Your task to perform on an android device: Go to CNN.com Image 0: 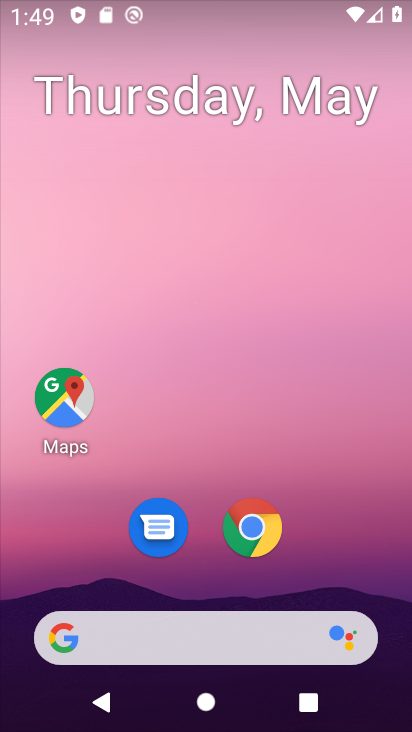
Step 0: click (236, 542)
Your task to perform on an android device: Go to CNN.com Image 1: 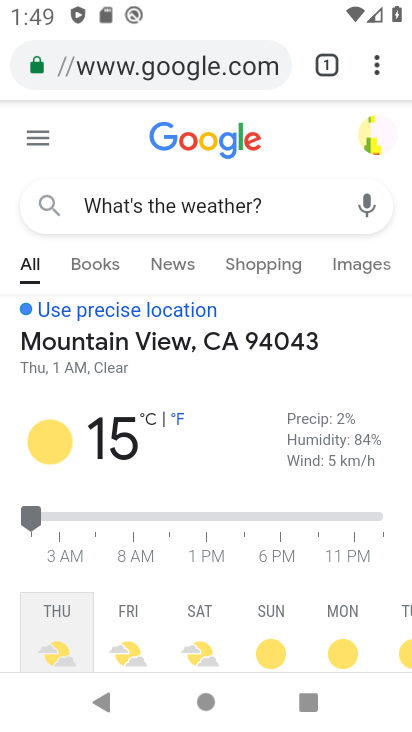
Step 1: click (168, 63)
Your task to perform on an android device: Go to CNN.com Image 2: 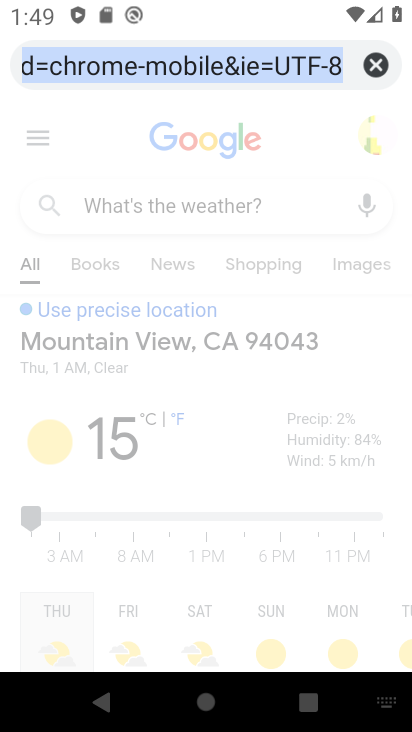
Step 2: click (374, 63)
Your task to perform on an android device: Go to CNN.com Image 3: 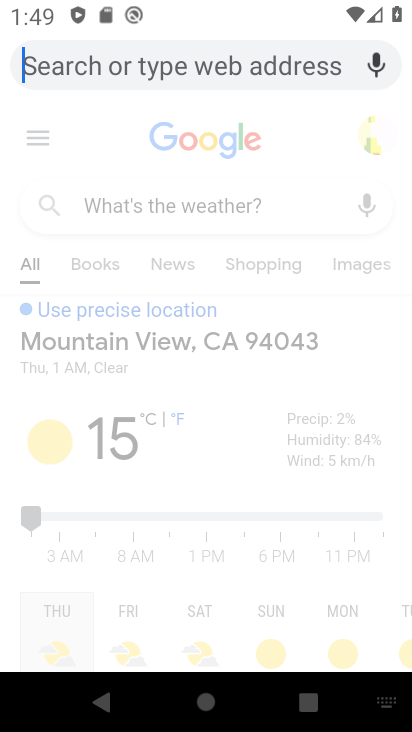
Step 3: click (374, 63)
Your task to perform on an android device: Go to CNN.com Image 4: 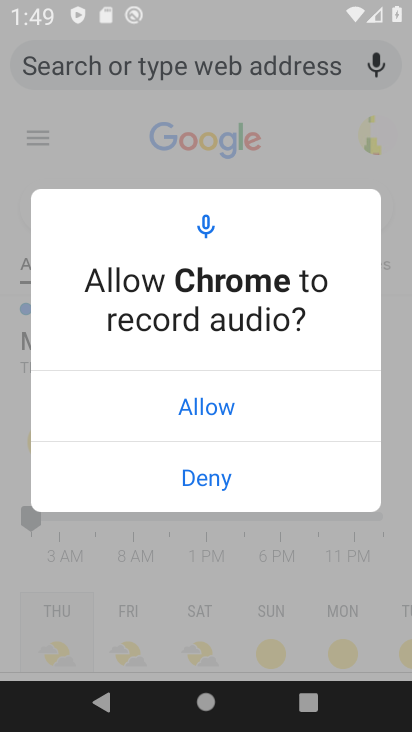
Step 4: type " CNN.com"
Your task to perform on an android device: Go to CNN.com Image 5: 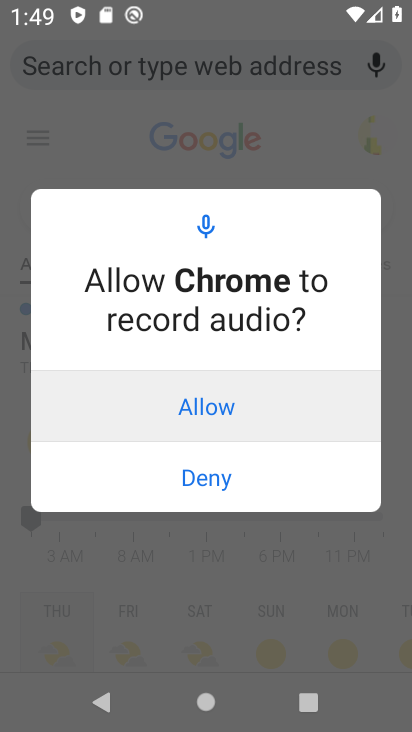
Step 5: click (233, 480)
Your task to perform on an android device: Go to CNN.com Image 6: 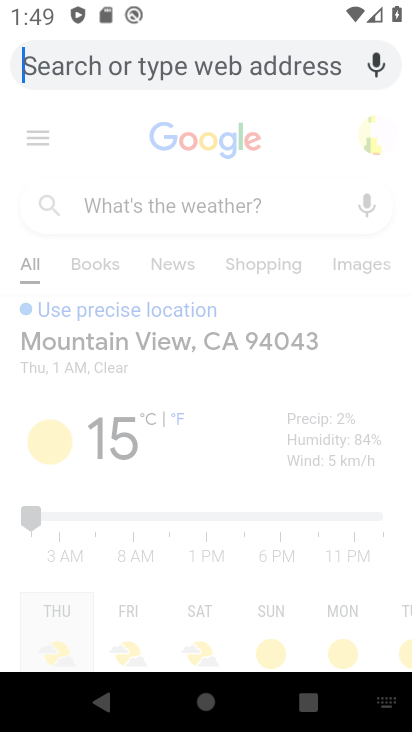
Step 6: click (152, 64)
Your task to perform on an android device: Go to CNN.com Image 7: 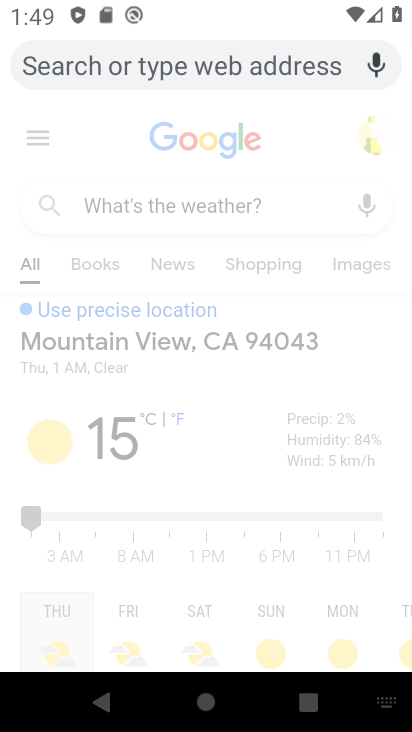
Step 7: type " CNN.com"
Your task to perform on an android device: Go to CNN.com Image 8: 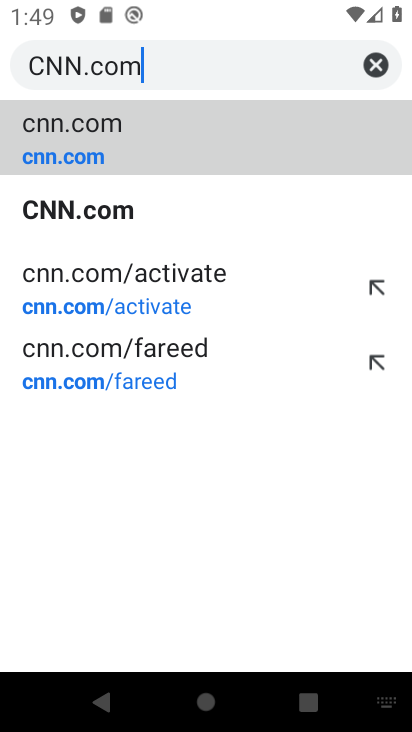
Step 8: click (135, 134)
Your task to perform on an android device: Go to CNN.com Image 9: 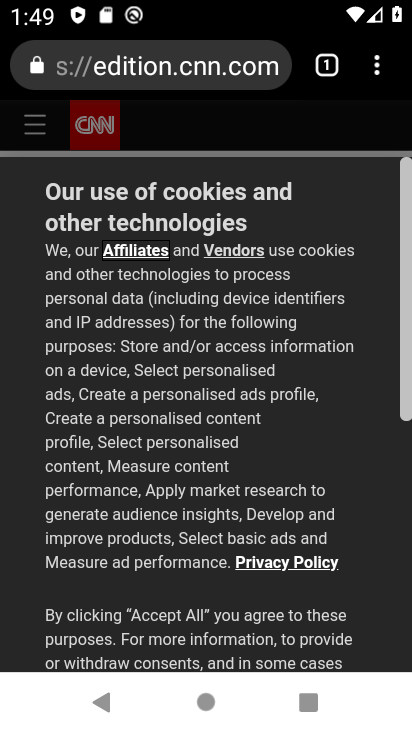
Step 9: task complete